Your task to perform on an android device: Open battery settings Image 0: 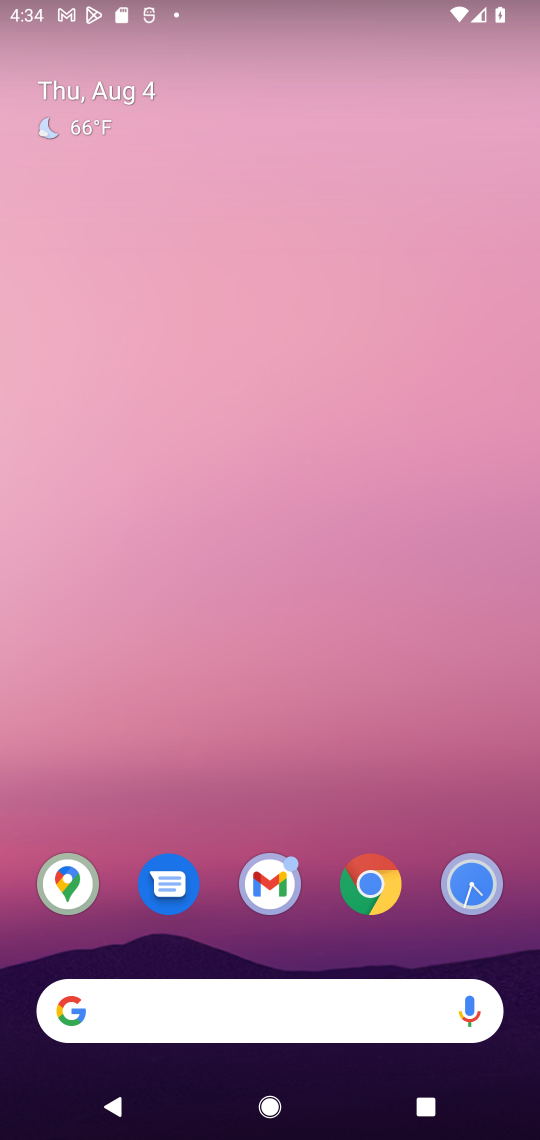
Step 0: drag from (323, 961) to (258, 291)
Your task to perform on an android device: Open battery settings Image 1: 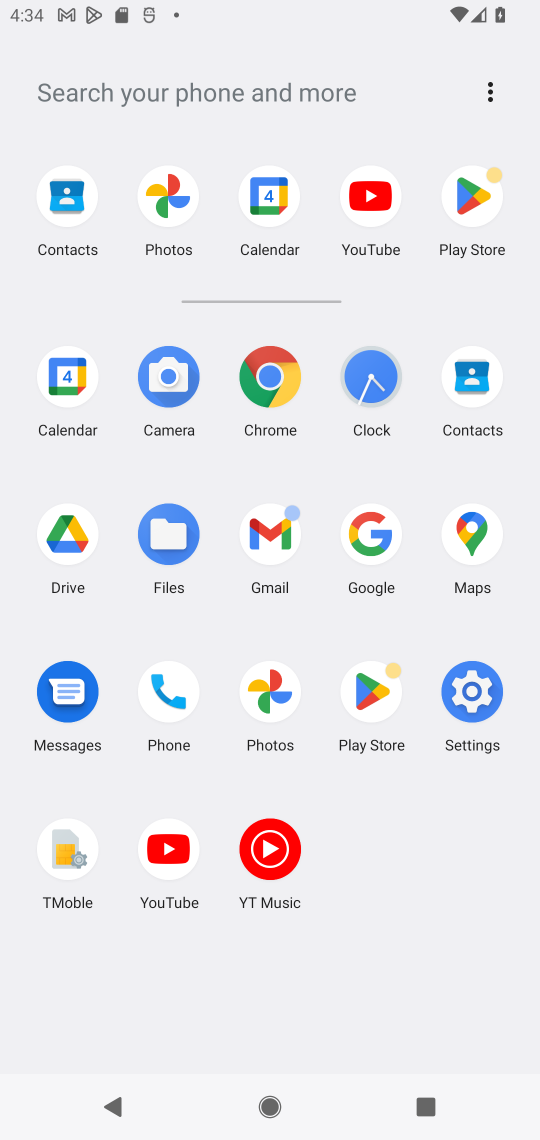
Step 1: click (481, 687)
Your task to perform on an android device: Open battery settings Image 2: 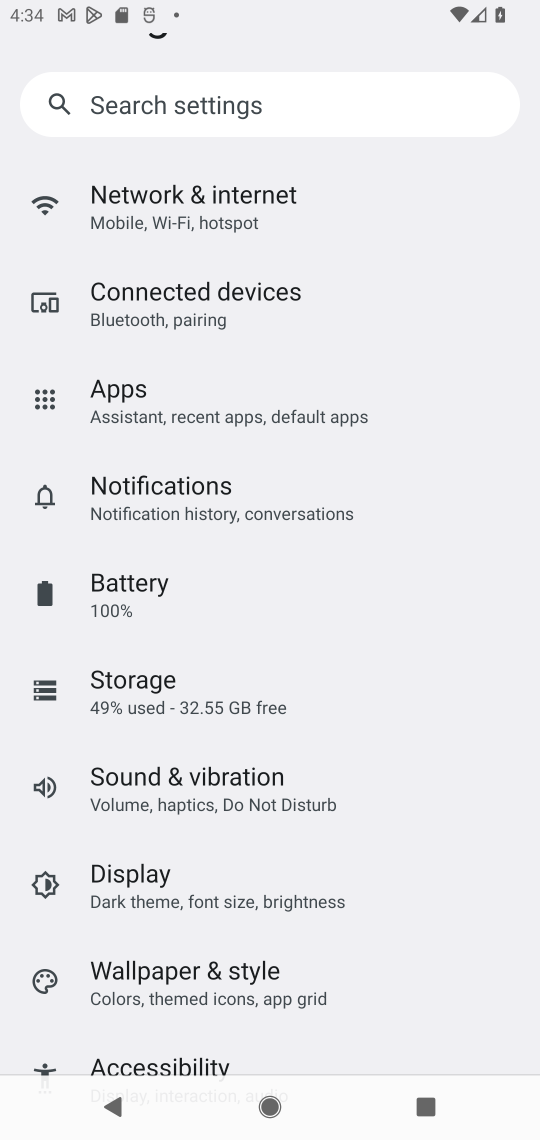
Step 2: click (175, 610)
Your task to perform on an android device: Open battery settings Image 3: 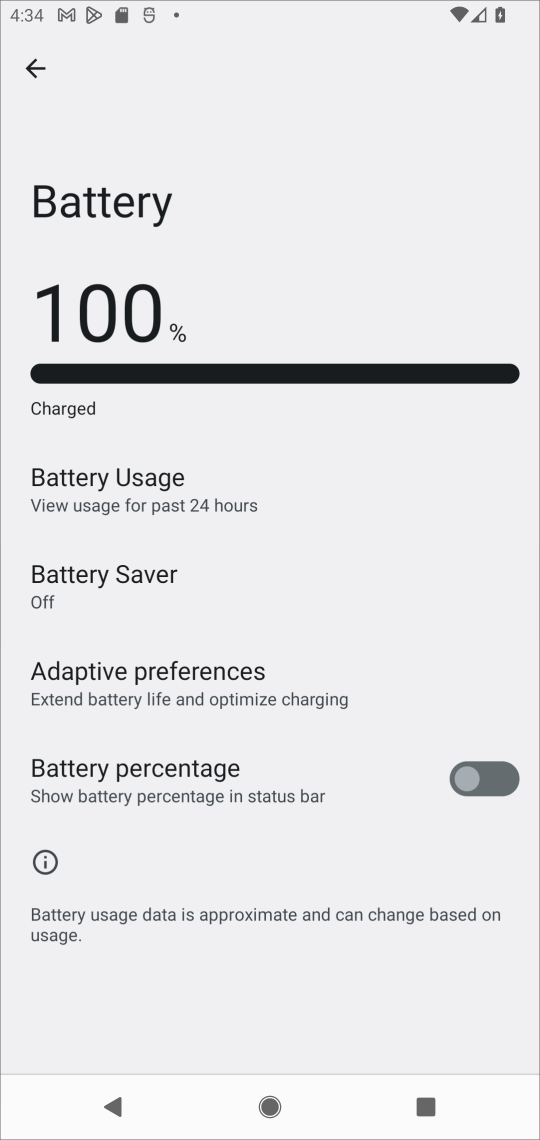
Step 3: task complete